Your task to perform on an android device: make emails show in primary in the gmail app Image 0: 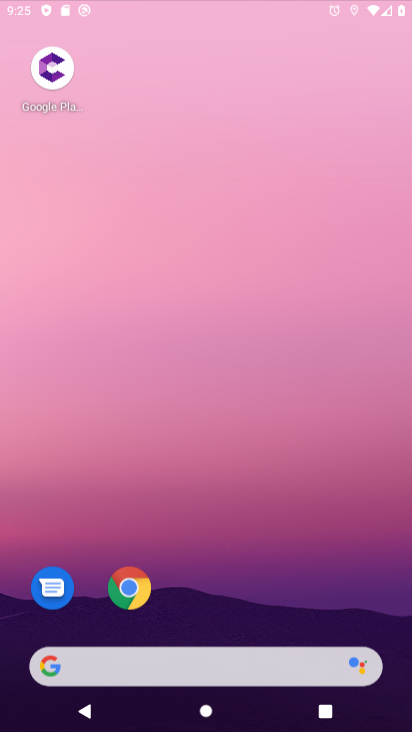
Step 0: click (296, 164)
Your task to perform on an android device: make emails show in primary in the gmail app Image 1: 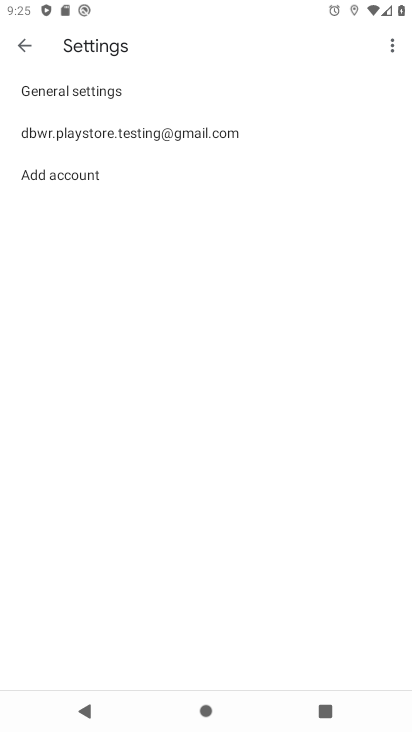
Step 1: press back button
Your task to perform on an android device: make emails show in primary in the gmail app Image 2: 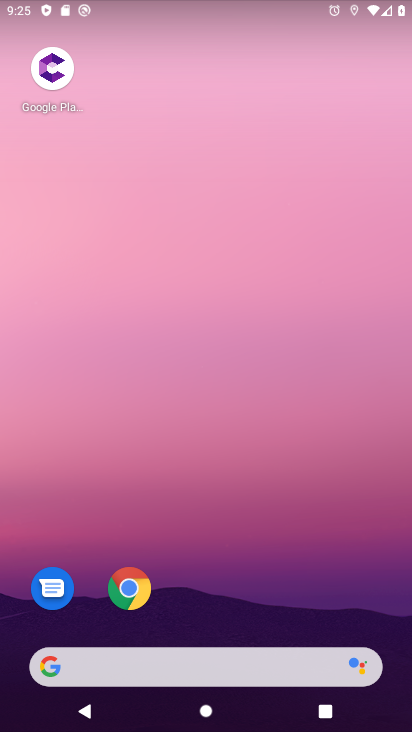
Step 2: drag from (258, 496) to (286, 289)
Your task to perform on an android device: make emails show in primary in the gmail app Image 3: 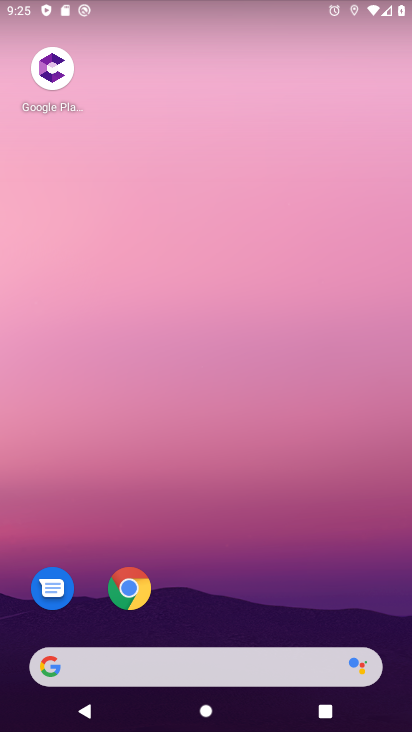
Step 3: drag from (233, 496) to (338, 103)
Your task to perform on an android device: make emails show in primary in the gmail app Image 4: 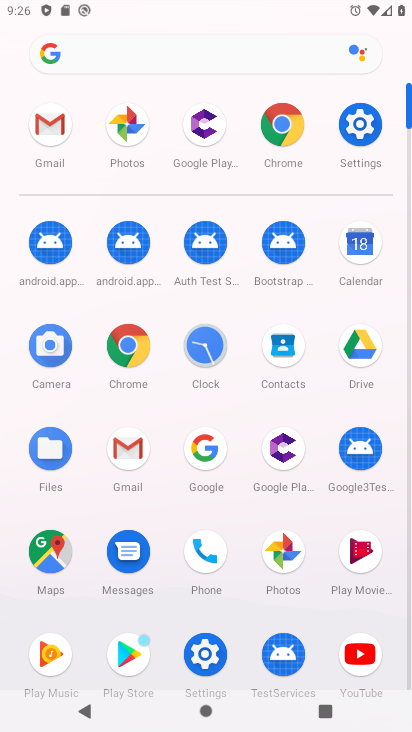
Step 4: click (42, 122)
Your task to perform on an android device: make emails show in primary in the gmail app Image 5: 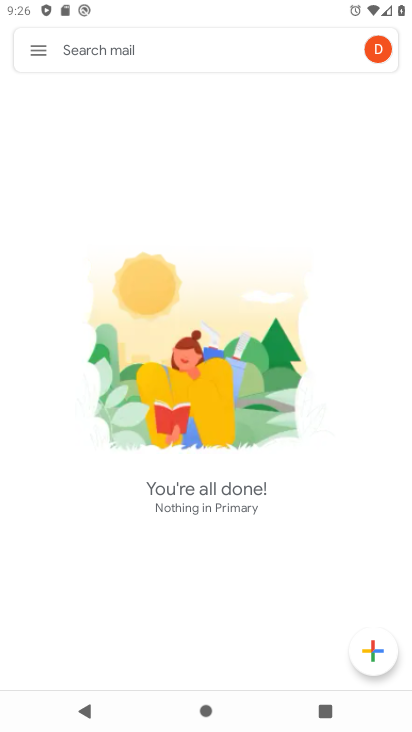
Step 5: click (45, 48)
Your task to perform on an android device: make emails show in primary in the gmail app Image 6: 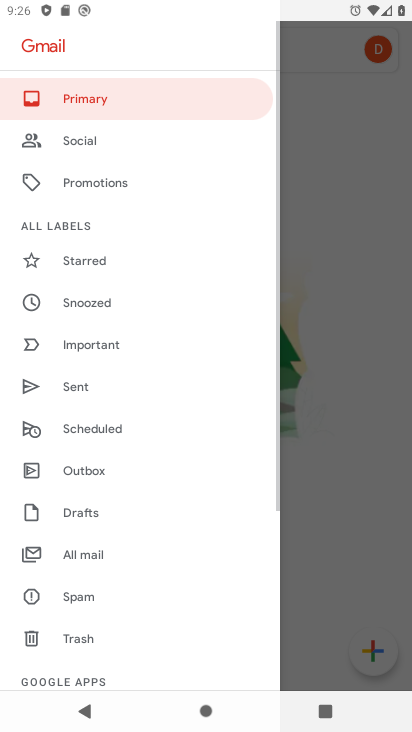
Step 6: click (107, 178)
Your task to perform on an android device: make emails show in primary in the gmail app Image 7: 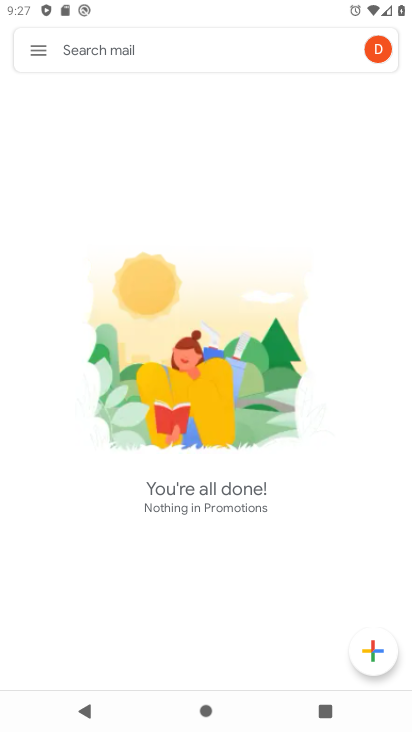
Step 7: click (36, 51)
Your task to perform on an android device: make emails show in primary in the gmail app Image 8: 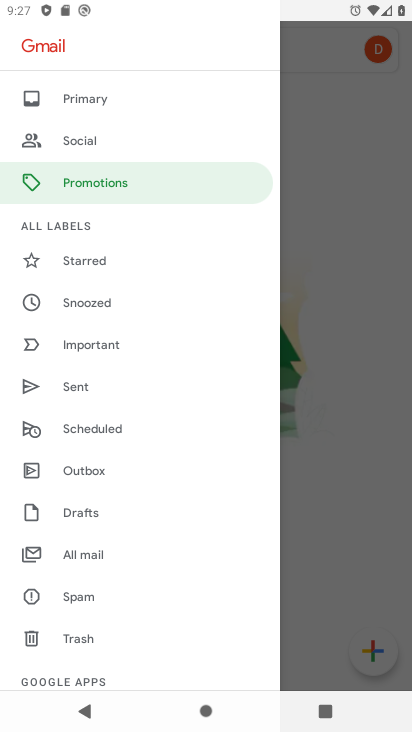
Step 8: drag from (121, 603) to (207, 247)
Your task to perform on an android device: make emails show in primary in the gmail app Image 9: 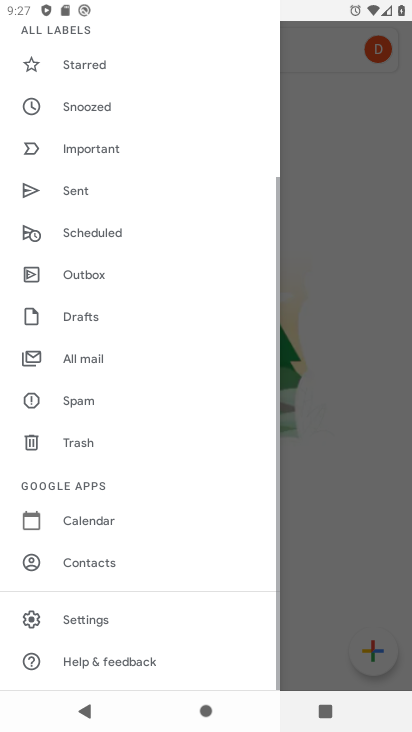
Step 9: click (109, 614)
Your task to perform on an android device: make emails show in primary in the gmail app Image 10: 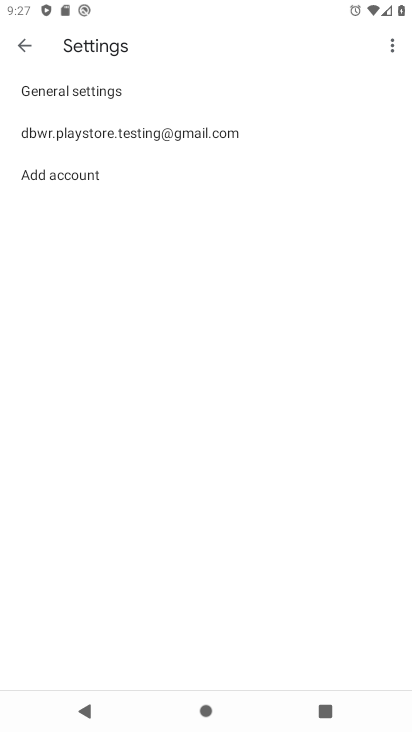
Step 10: click (26, 40)
Your task to perform on an android device: make emails show in primary in the gmail app Image 11: 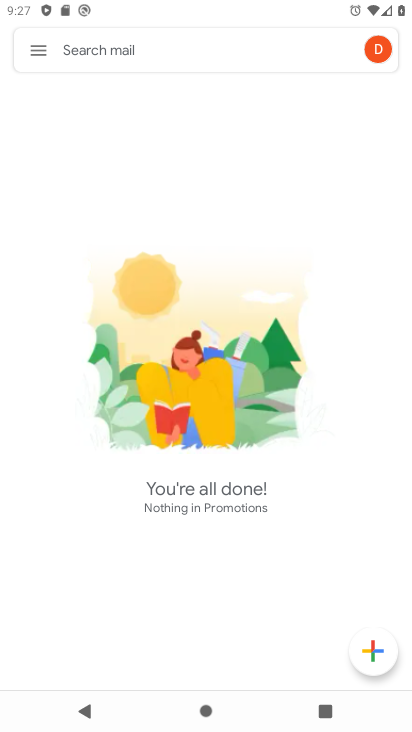
Step 11: task complete